Your task to perform on an android device: Turn off the flashlight Image 0: 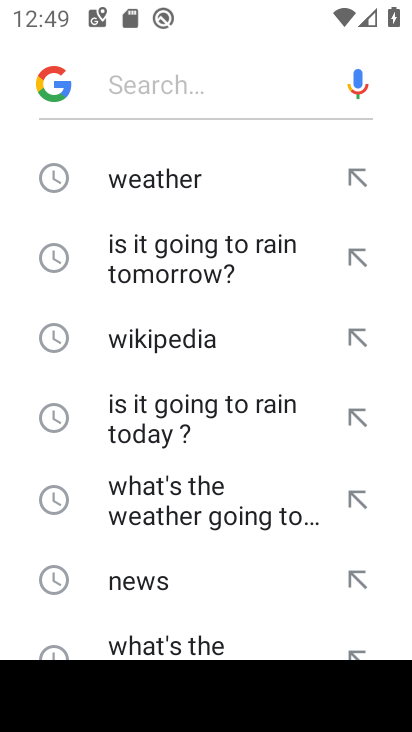
Step 0: press home button
Your task to perform on an android device: Turn off the flashlight Image 1: 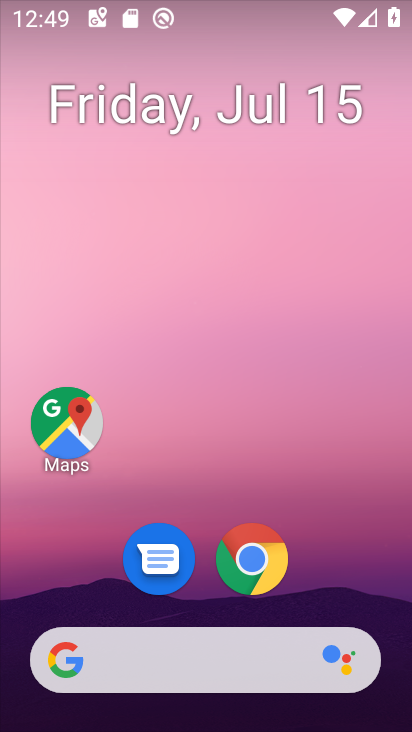
Step 1: drag from (287, 7) to (309, 368)
Your task to perform on an android device: Turn off the flashlight Image 2: 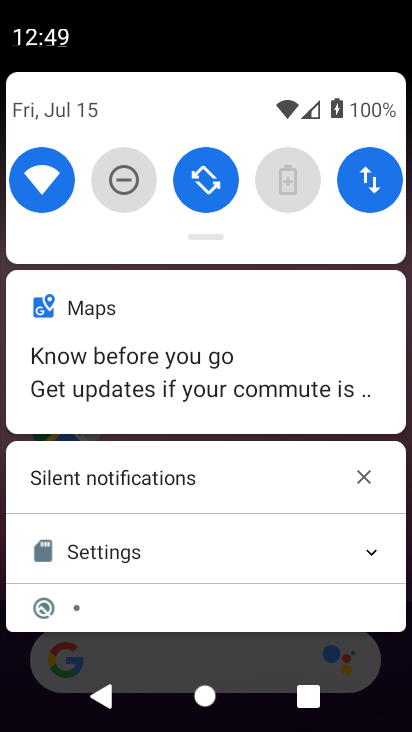
Step 2: drag from (247, 118) to (237, 386)
Your task to perform on an android device: Turn off the flashlight Image 3: 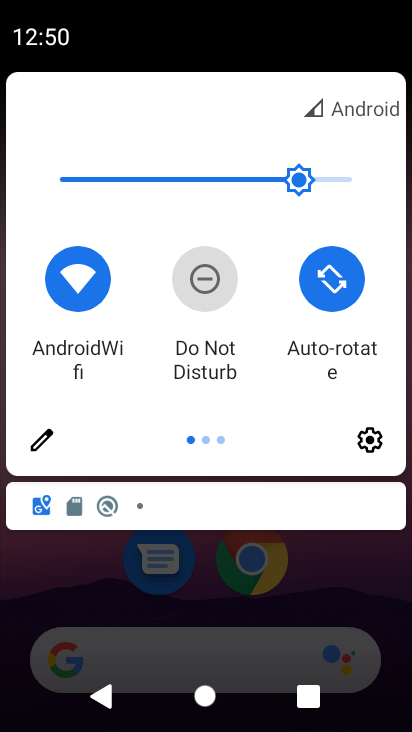
Step 3: click (40, 435)
Your task to perform on an android device: Turn off the flashlight Image 4: 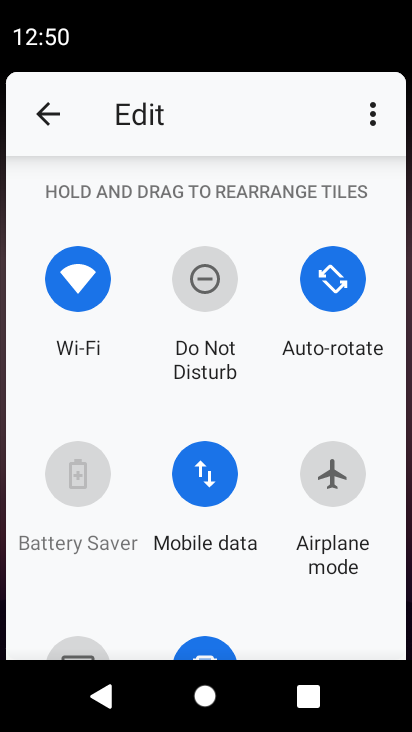
Step 4: task complete